Your task to perform on an android device: Go to Android settings Image 0: 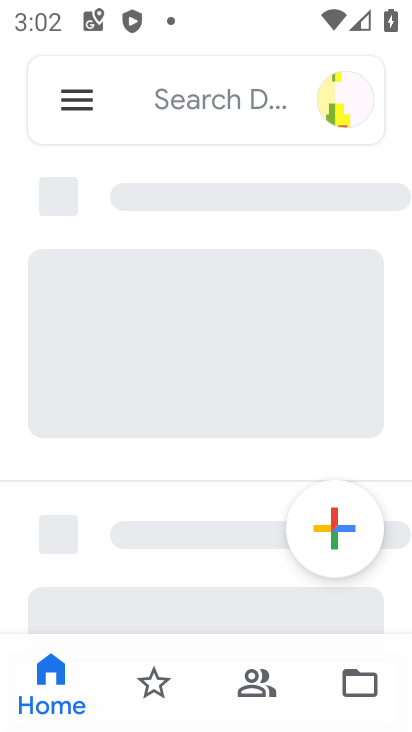
Step 0: press home button
Your task to perform on an android device: Go to Android settings Image 1: 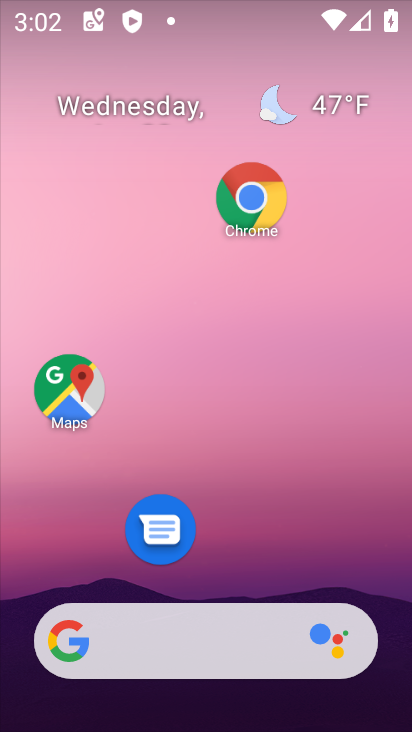
Step 1: drag from (266, 413) to (232, 34)
Your task to perform on an android device: Go to Android settings Image 2: 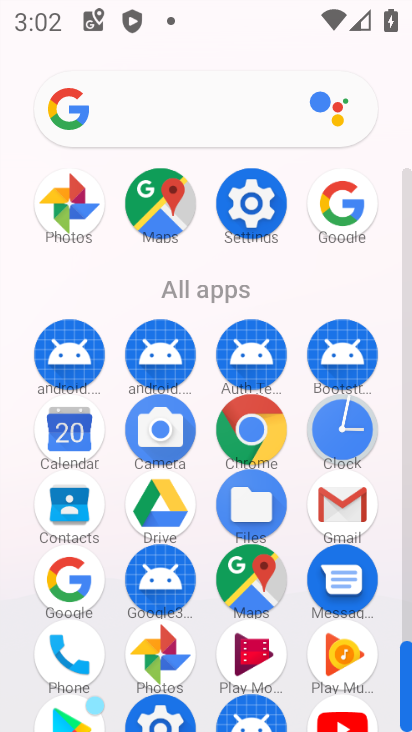
Step 2: click (248, 212)
Your task to perform on an android device: Go to Android settings Image 3: 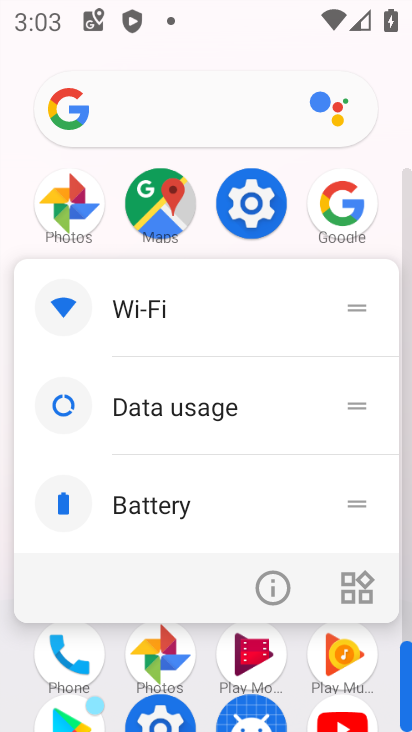
Step 3: click (246, 211)
Your task to perform on an android device: Go to Android settings Image 4: 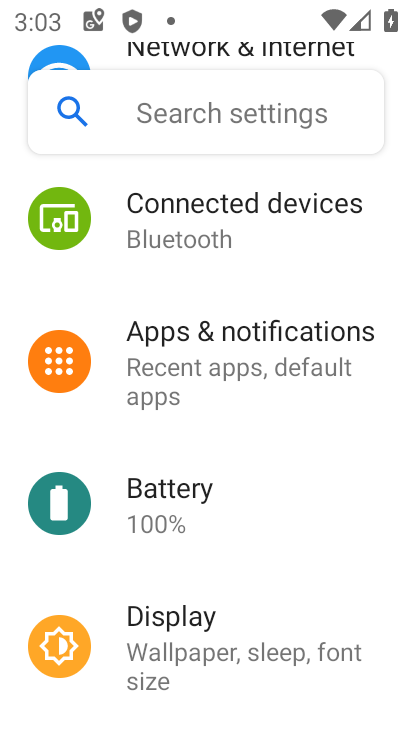
Step 4: drag from (288, 637) to (332, 289)
Your task to perform on an android device: Go to Android settings Image 5: 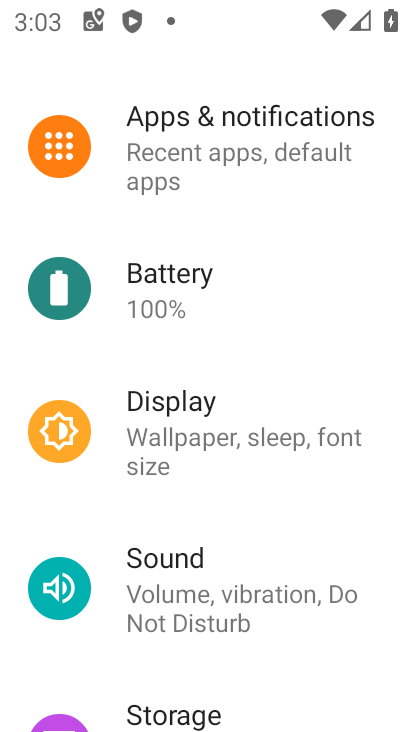
Step 5: drag from (280, 239) to (253, 731)
Your task to perform on an android device: Go to Android settings Image 6: 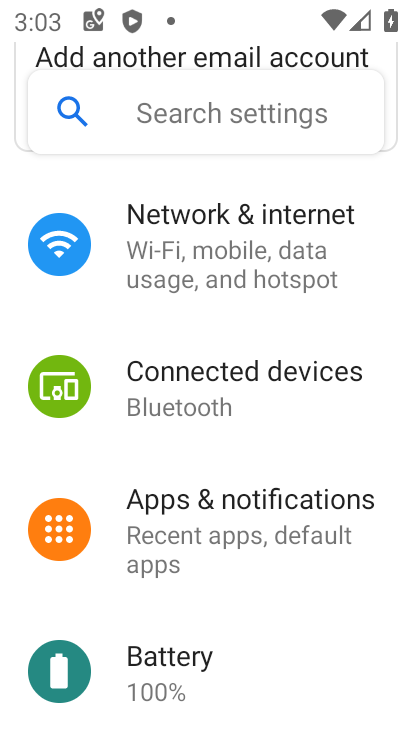
Step 6: drag from (254, 288) to (217, 513)
Your task to perform on an android device: Go to Android settings Image 7: 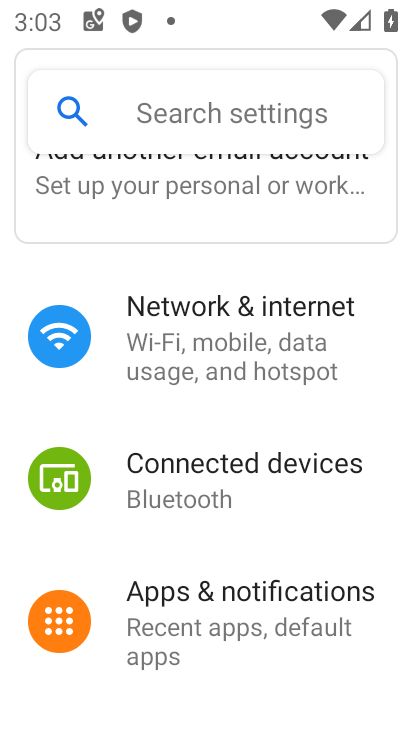
Step 7: drag from (235, 669) to (284, 171)
Your task to perform on an android device: Go to Android settings Image 8: 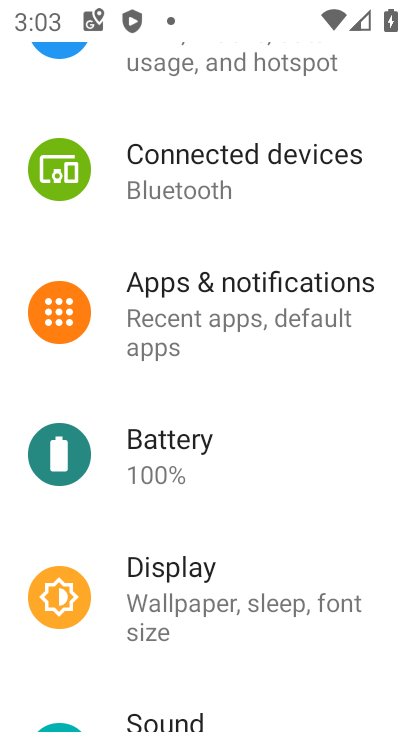
Step 8: drag from (285, 646) to (311, 175)
Your task to perform on an android device: Go to Android settings Image 9: 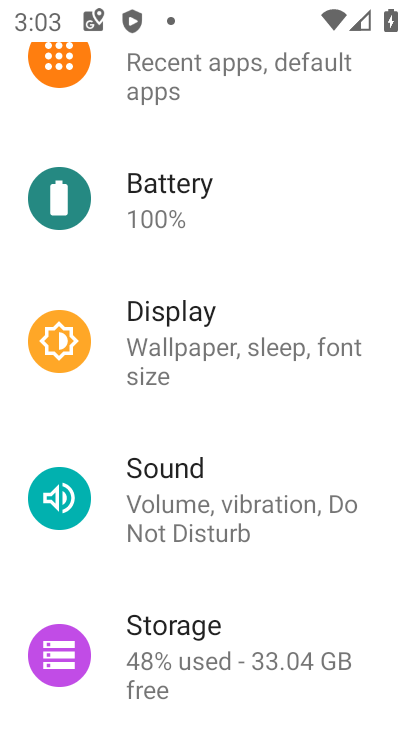
Step 9: drag from (262, 662) to (246, 147)
Your task to perform on an android device: Go to Android settings Image 10: 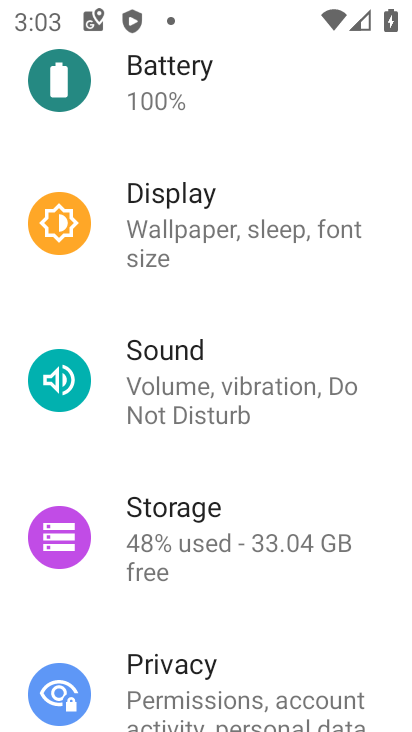
Step 10: drag from (285, 551) to (282, 82)
Your task to perform on an android device: Go to Android settings Image 11: 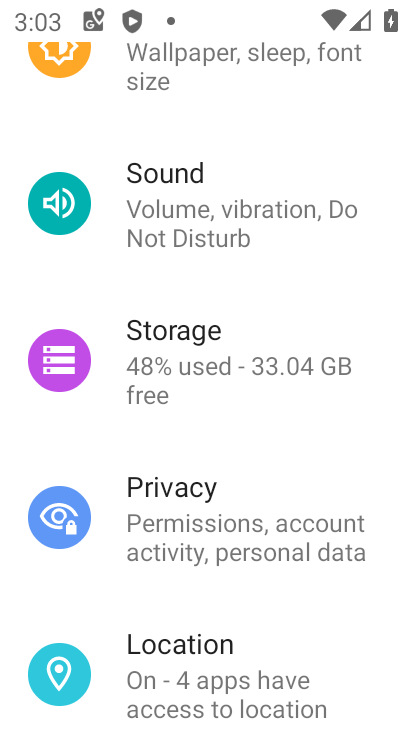
Step 11: drag from (287, 627) to (260, 106)
Your task to perform on an android device: Go to Android settings Image 12: 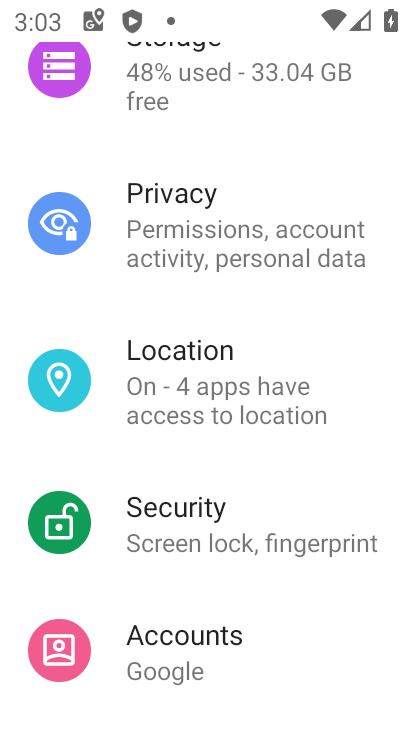
Step 12: drag from (263, 617) to (271, 99)
Your task to perform on an android device: Go to Android settings Image 13: 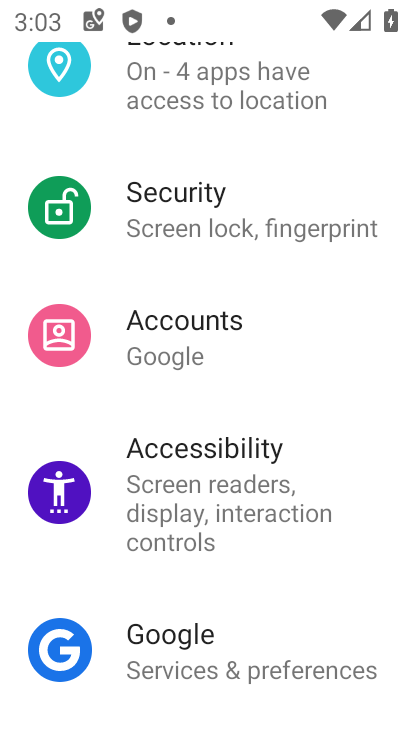
Step 13: drag from (257, 507) to (233, 107)
Your task to perform on an android device: Go to Android settings Image 14: 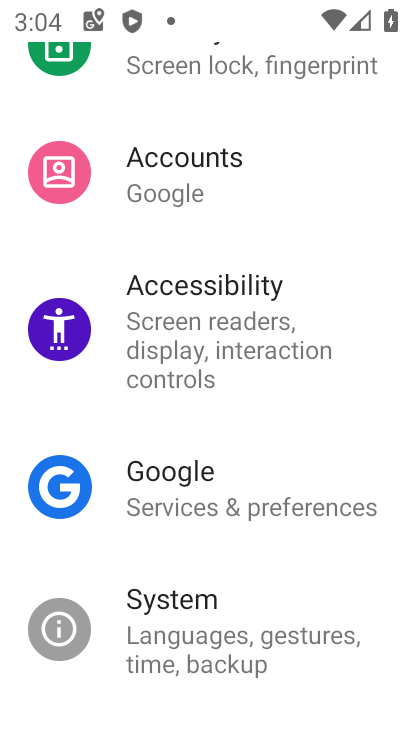
Step 14: drag from (239, 572) to (257, 153)
Your task to perform on an android device: Go to Android settings Image 15: 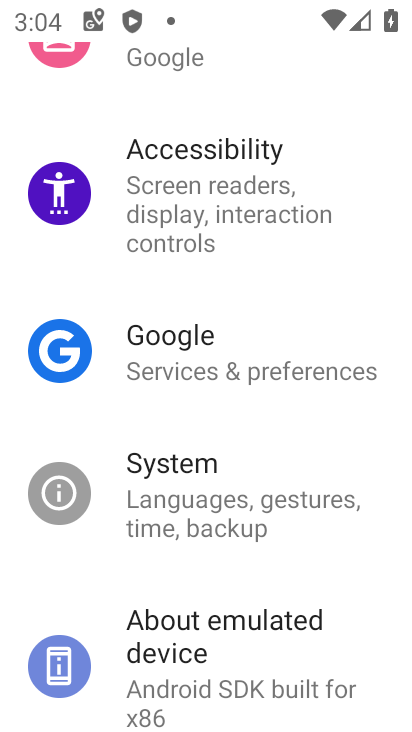
Step 15: click (244, 644)
Your task to perform on an android device: Go to Android settings Image 16: 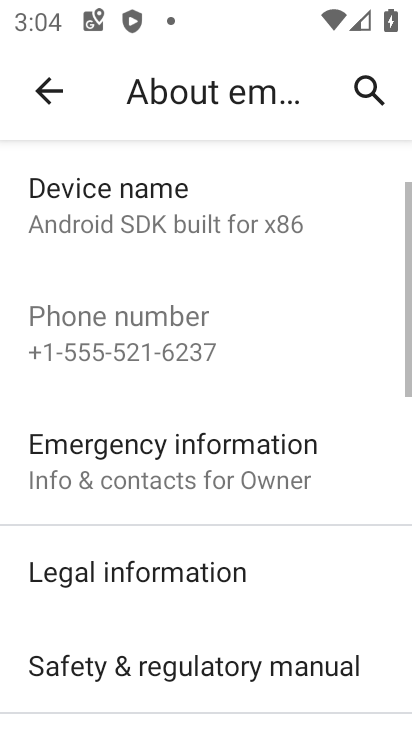
Step 16: drag from (219, 618) to (254, 228)
Your task to perform on an android device: Go to Android settings Image 17: 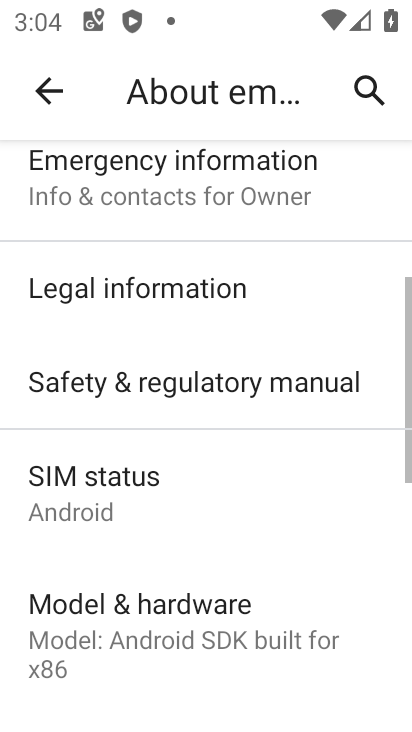
Step 17: drag from (204, 619) to (242, 201)
Your task to perform on an android device: Go to Android settings Image 18: 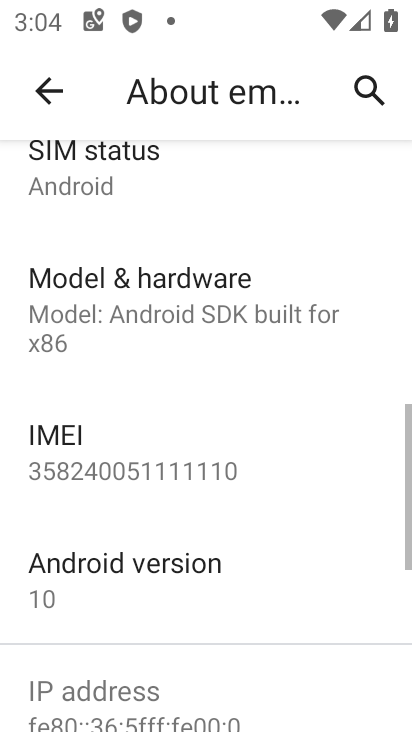
Step 18: click (183, 562)
Your task to perform on an android device: Go to Android settings Image 19: 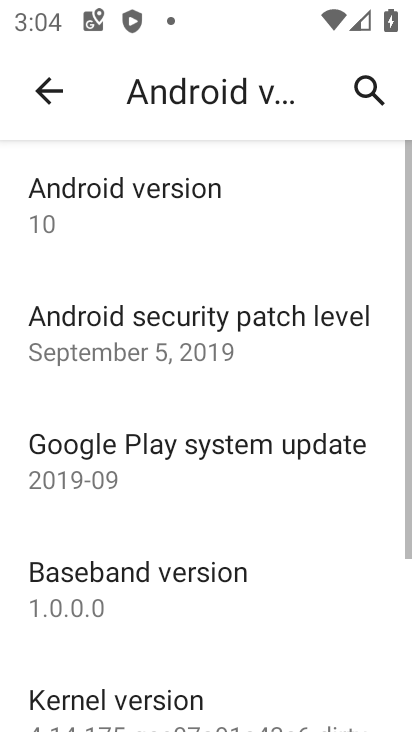
Step 19: task complete